Your task to perform on an android device: turn on the 12-hour format for clock Image 0: 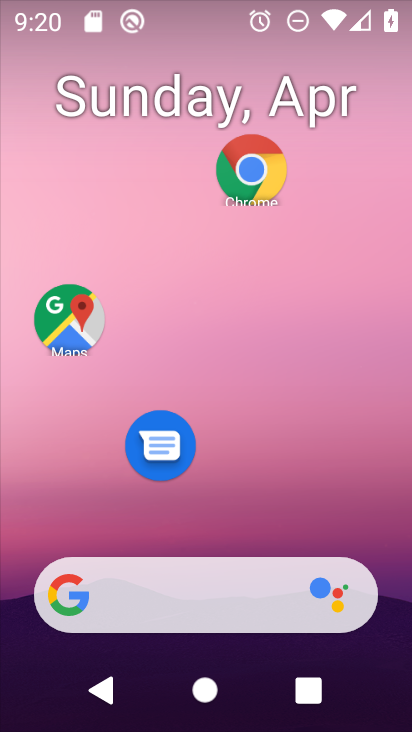
Step 0: drag from (249, 515) to (224, 20)
Your task to perform on an android device: turn on the 12-hour format for clock Image 1: 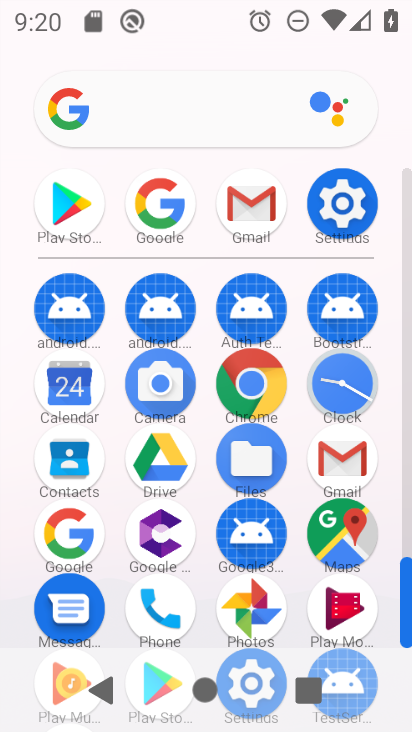
Step 1: click (341, 384)
Your task to perform on an android device: turn on the 12-hour format for clock Image 2: 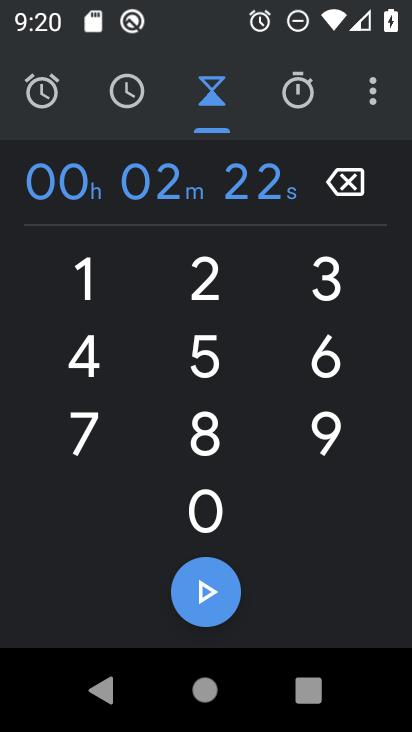
Step 2: click (371, 92)
Your task to perform on an android device: turn on the 12-hour format for clock Image 3: 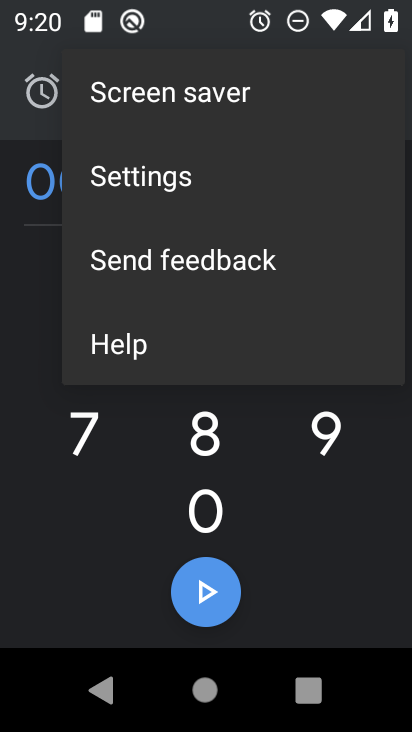
Step 3: click (219, 180)
Your task to perform on an android device: turn on the 12-hour format for clock Image 4: 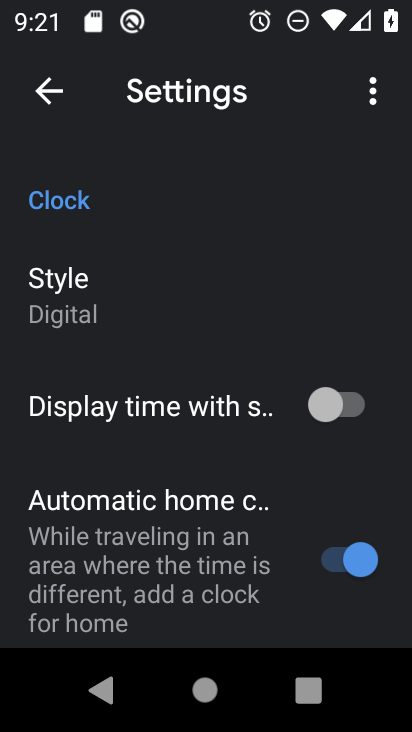
Step 4: drag from (226, 588) to (232, 268)
Your task to perform on an android device: turn on the 12-hour format for clock Image 5: 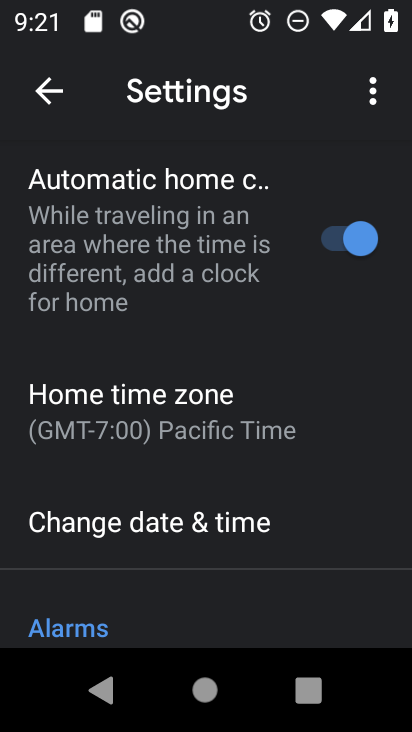
Step 5: click (173, 535)
Your task to perform on an android device: turn on the 12-hour format for clock Image 6: 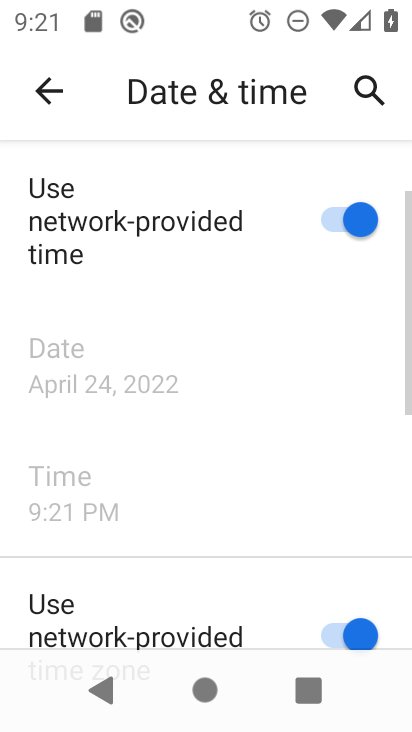
Step 6: task complete